Your task to perform on an android device: open device folders in google photos Image 0: 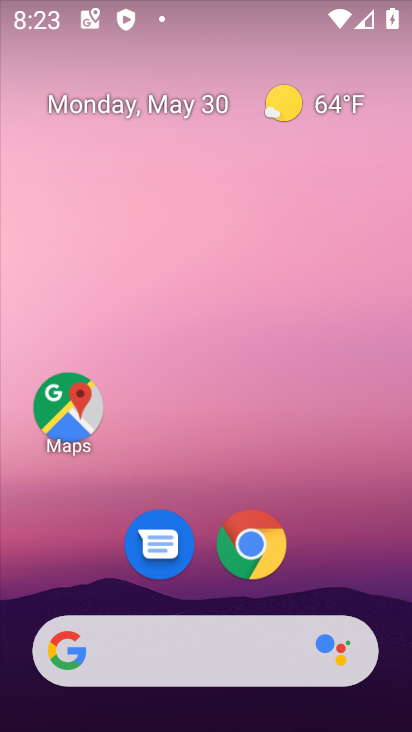
Step 0: drag from (233, 608) to (139, 52)
Your task to perform on an android device: open device folders in google photos Image 1: 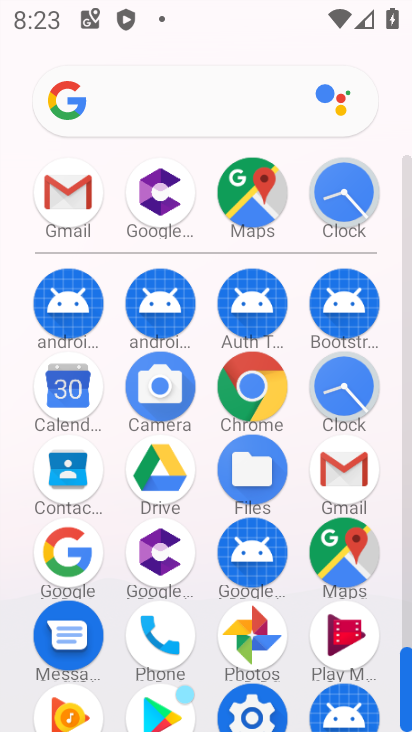
Step 1: click (250, 628)
Your task to perform on an android device: open device folders in google photos Image 2: 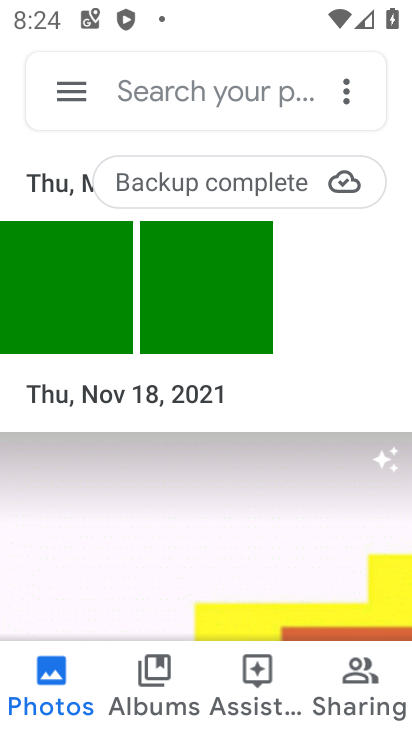
Step 2: click (63, 98)
Your task to perform on an android device: open device folders in google photos Image 3: 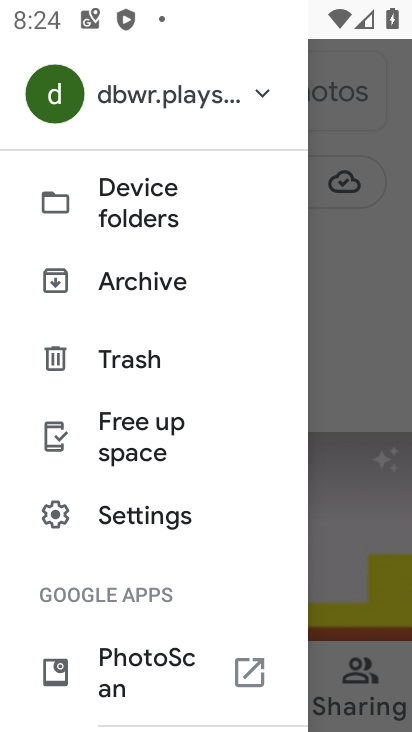
Step 3: click (137, 193)
Your task to perform on an android device: open device folders in google photos Image 4: 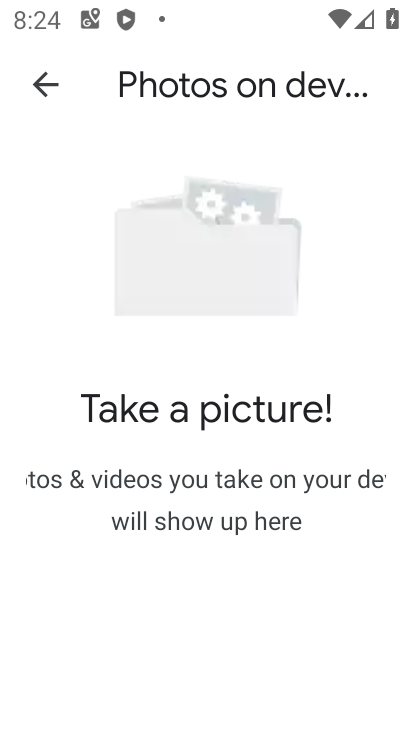
Step 4: task complete